Your task to perform on an android device: Search for Italian restaurants on Maps Image 0: 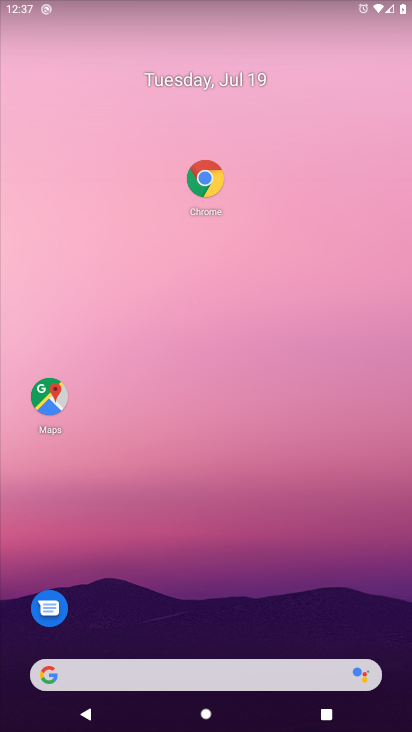
Step 0: click (46, 395)
Your task to perform on an android device: Search for Italian restaurants on Maps Image 1: 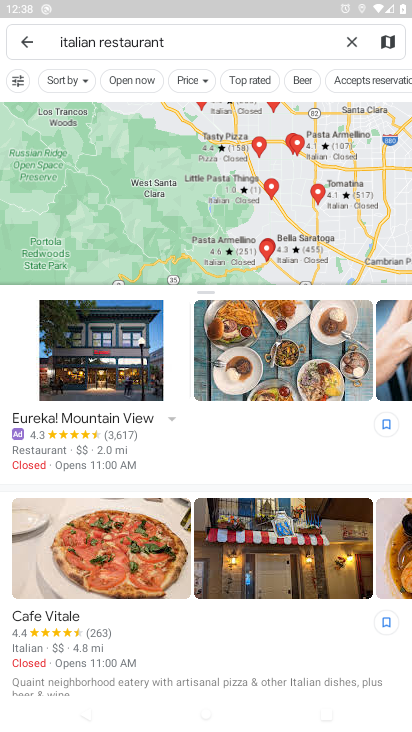
Step 1: task complete